Your task to perform on an android device: all mails in gmail Image 0: 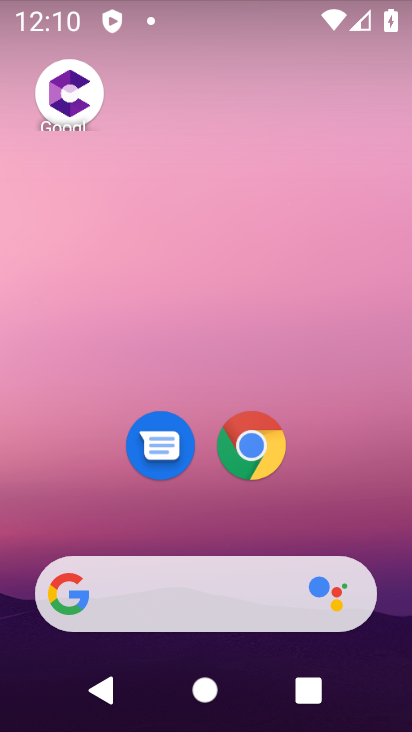
Step 0: drag from (229, 539) to (230, 79)
Your task to perform on an android device: all mails in gmail Image 1: 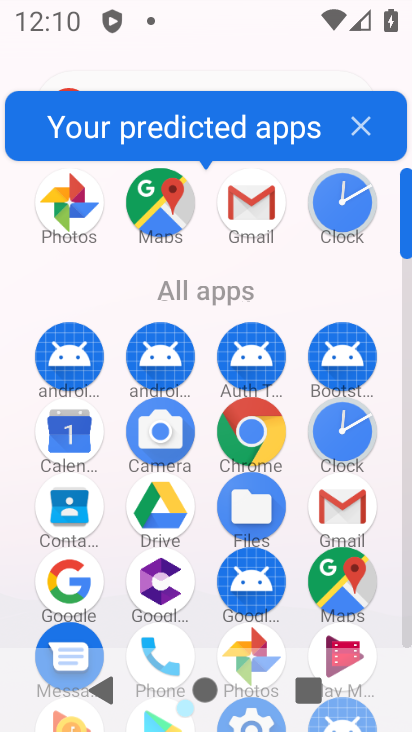
Step 1: click (241, 191)
Your task to perform on an android device: all mails in gmail Image 2: 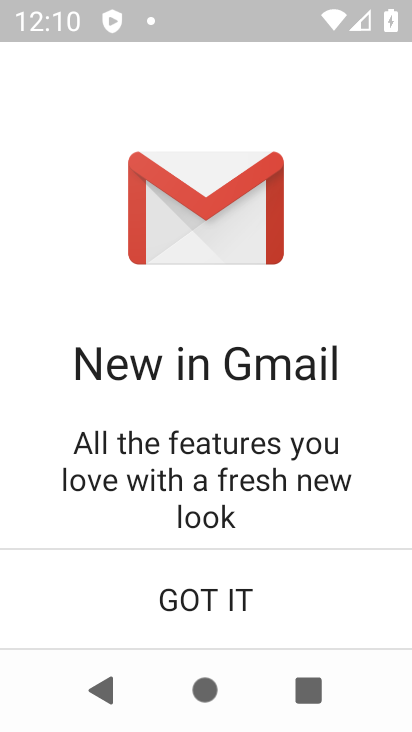
Step 2: click (206, 603)
Your task to perform on an android device: all mails in gmail Image 3: 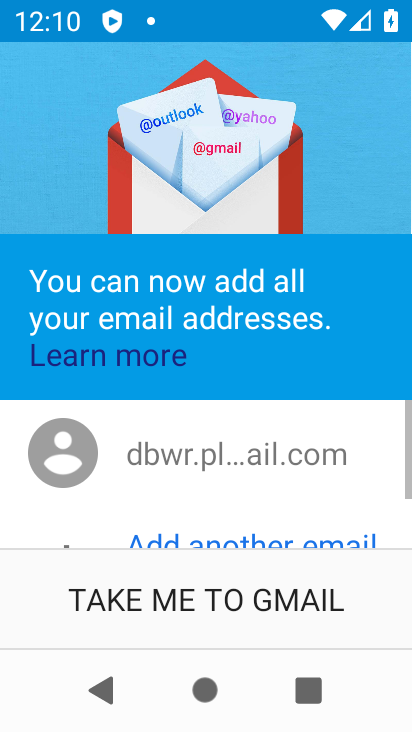
Step 3: click (229, 608)
Your task to perform on an android device: all mails in gmail Image 4: 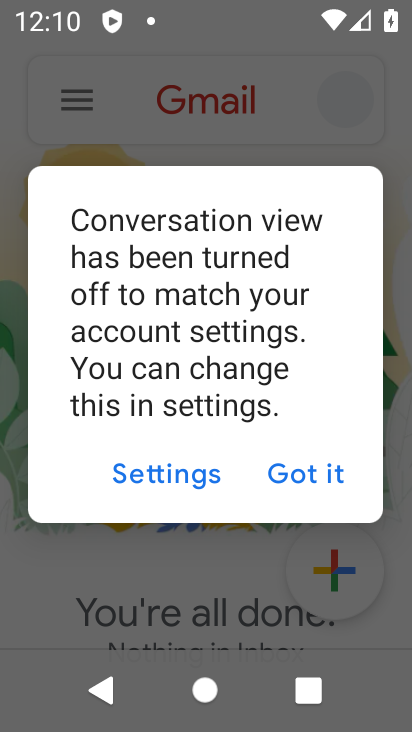
Step 4: click (318, 478)
Your task to perform on an android device: all mails in gmail Image 5: 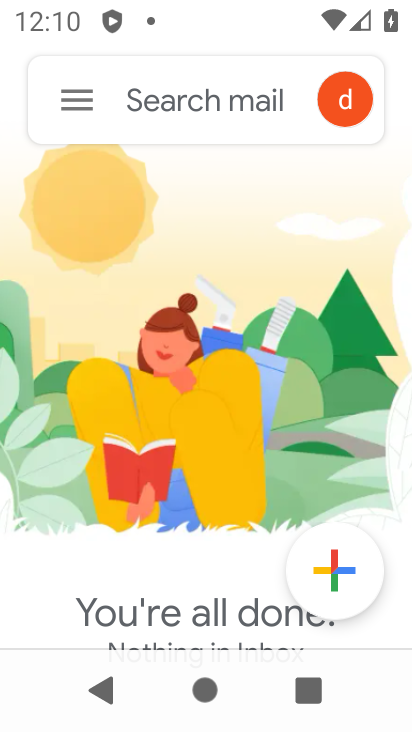
Step 5: task complete